Your task to perform on an android device: change the clock display to show seconds Image 0: 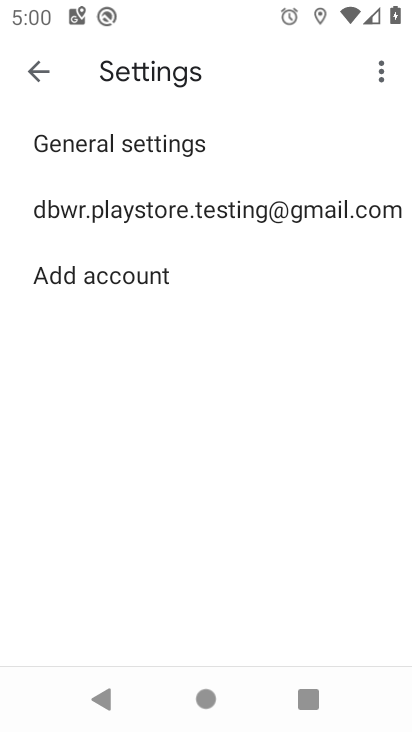
Step 0: press home button
Your task to perform on an android device: change the clock display to show seconds Image 1: 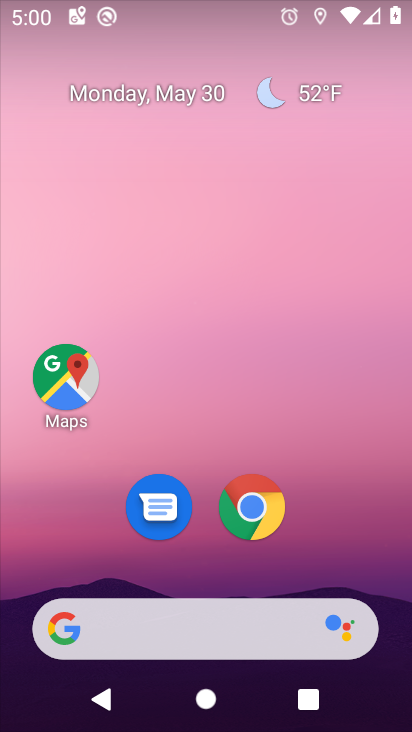
Step 1: drag from (300, 551) to (288, 0)
Your task to perform on an android device: change the clock display to show seconds Image 2: 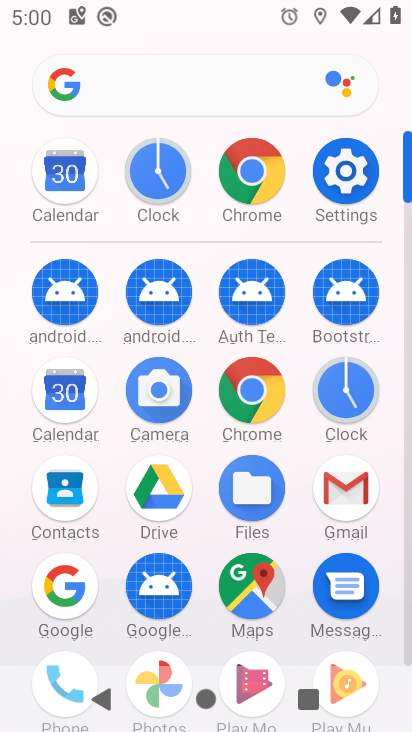
Step 2: click (352, 399)
Your task to perform on an android device: change the clock display to show seconds Image 3: 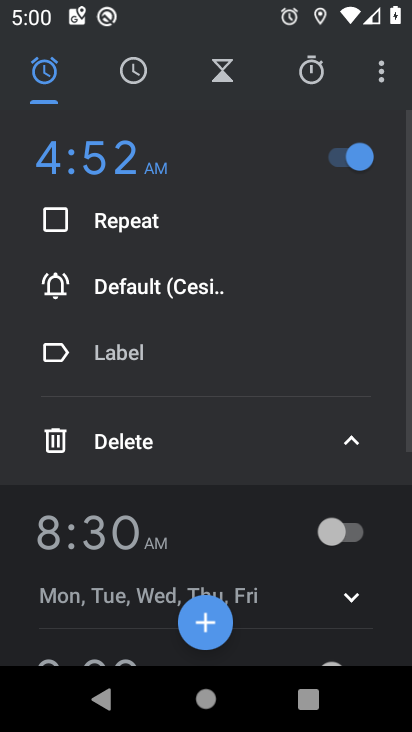
Step 3: click (388, 66)
Your task to perform on an android device: change the clock display to show seconds Image 4: 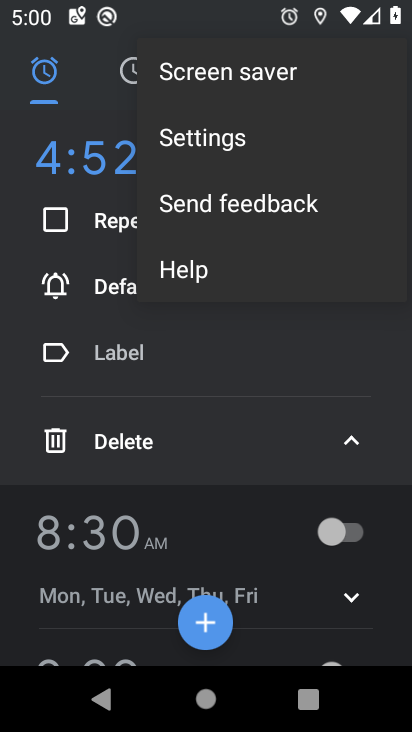
Step 4: click (260, 141)
Your task to perform on an android device: change the clock display to show seconds Image 5: 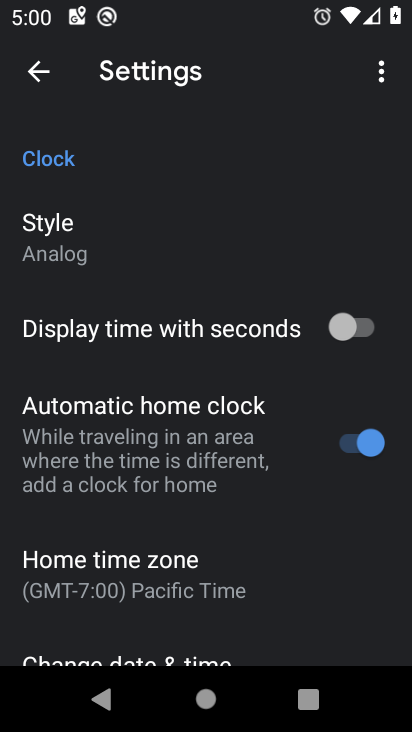
Step 5: click (241, 336)
Your task to perform on an android device: change the clock display to show seconds Image 6: 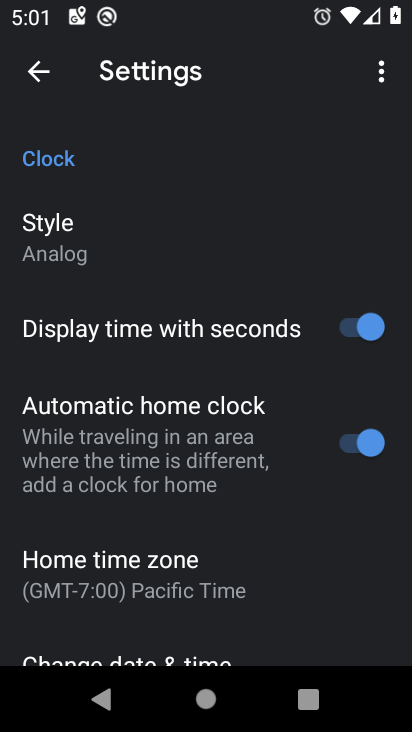
Step 6: task complete